Your task to perform on an android device: turn vacation reply on in the gmail app Image 0: 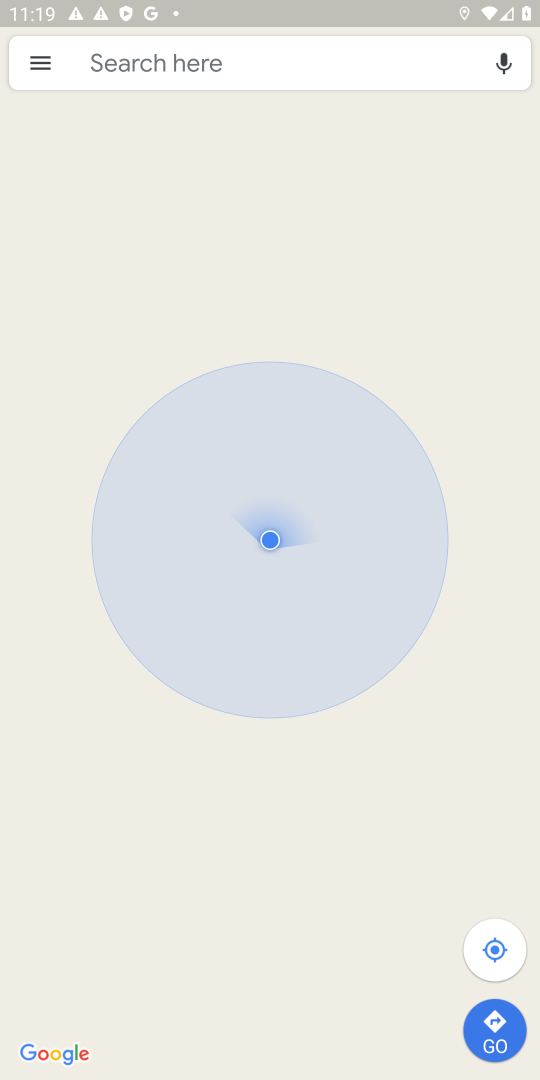
Step 0: press back button
Your task to perform on an android device: turn vacation reply on in the gmail app Image 1: 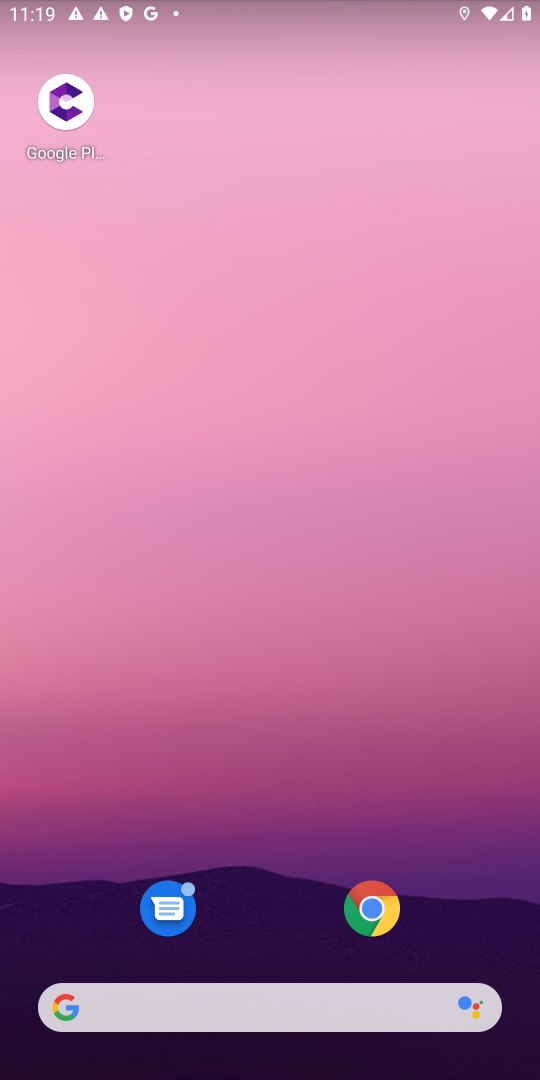
Step 1: drag from (465, 921) to (371, 94)
Your task to perform on an android device: turn vacation reply on in the gmail app Image 2: 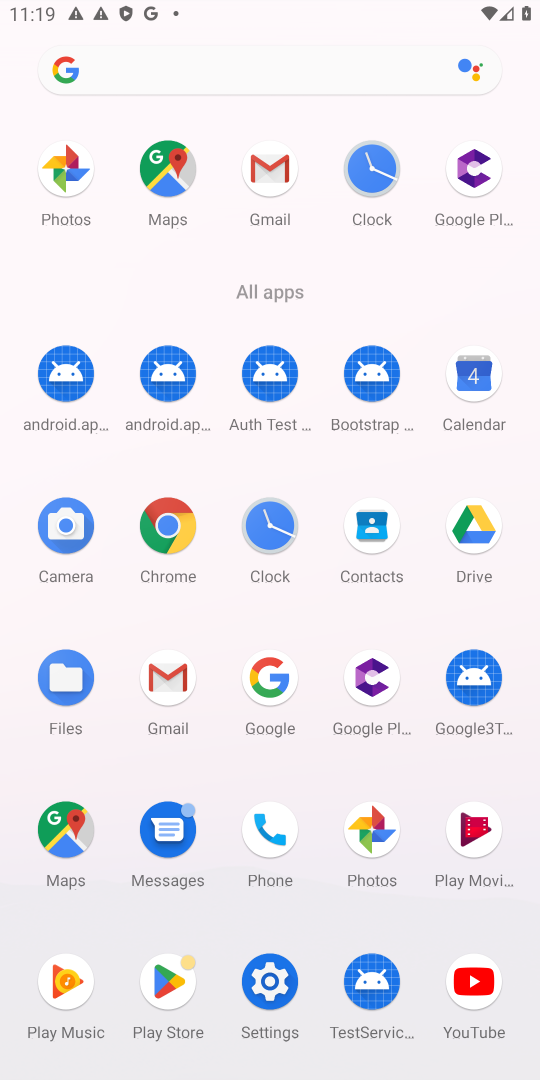
Step 2: click (267, 153)
Your task to perform on an android device: turn vacation reply on in the gmail app Image 3: 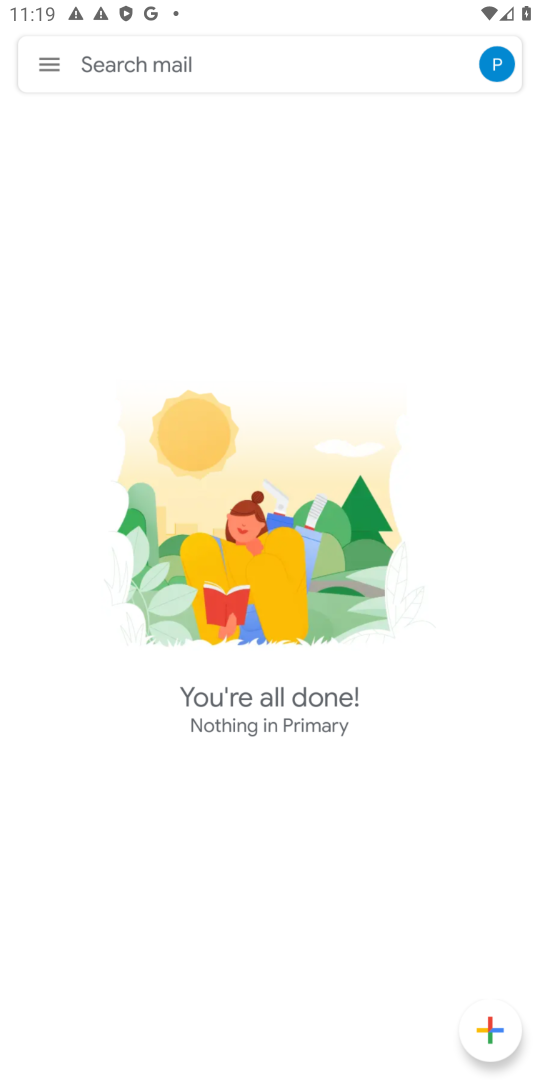
Step 3: click (284, 188)
Your task to perform on an android device: turn vacation reply on in the gmail app Image 4: 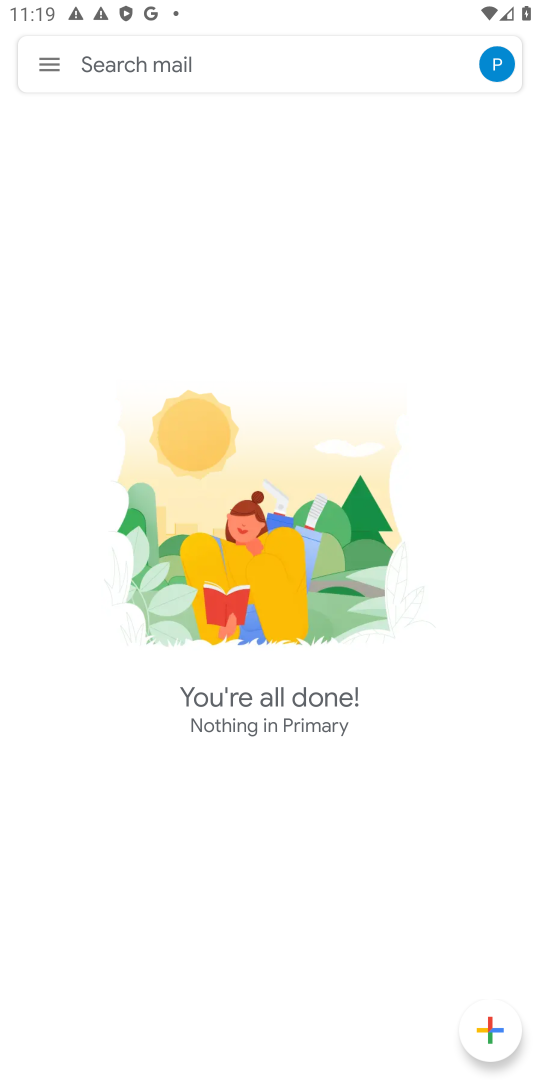
Step 4: click (49, 70)
Your task to perform on an android device: turn vacation reply on in the gmail app Image 5: 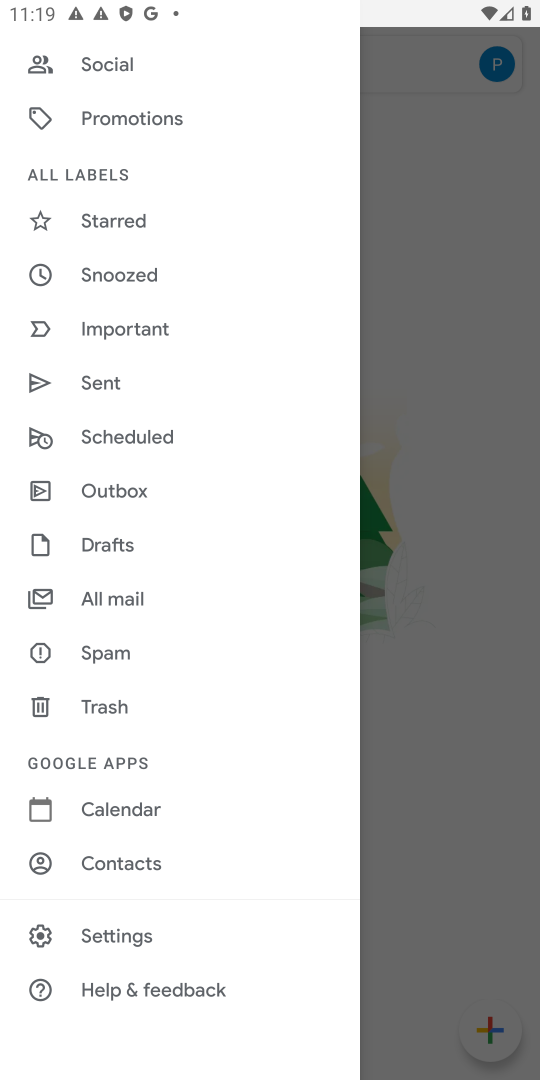
Step 5: click (167, 946)
Your task to perform on an android device: turn vacation reply on in the gmail app Image 6: 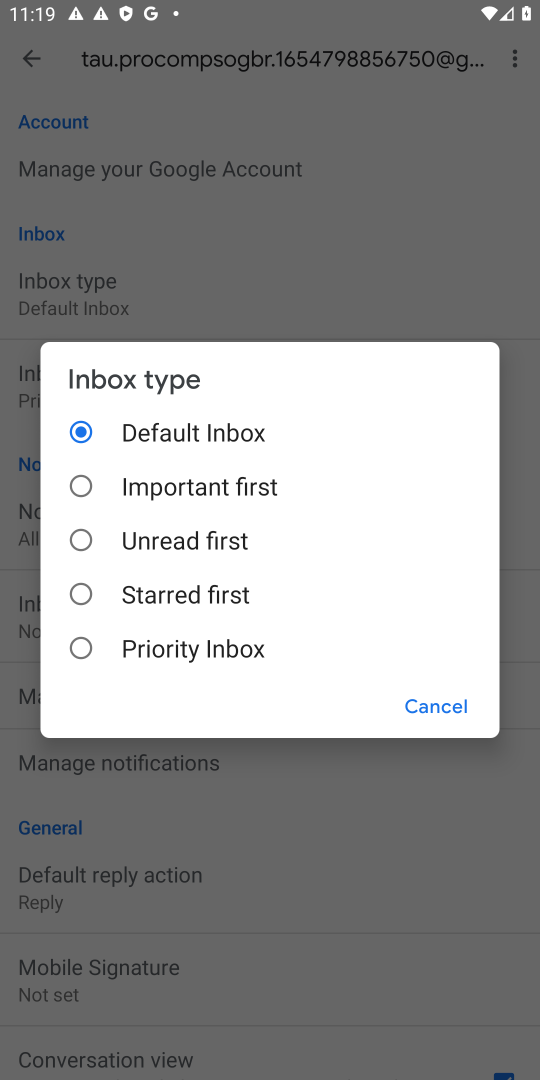
Step 6: click (453, 696)
Your task to perform on an android device: turn vacation reply on in the gmail app Image 7: 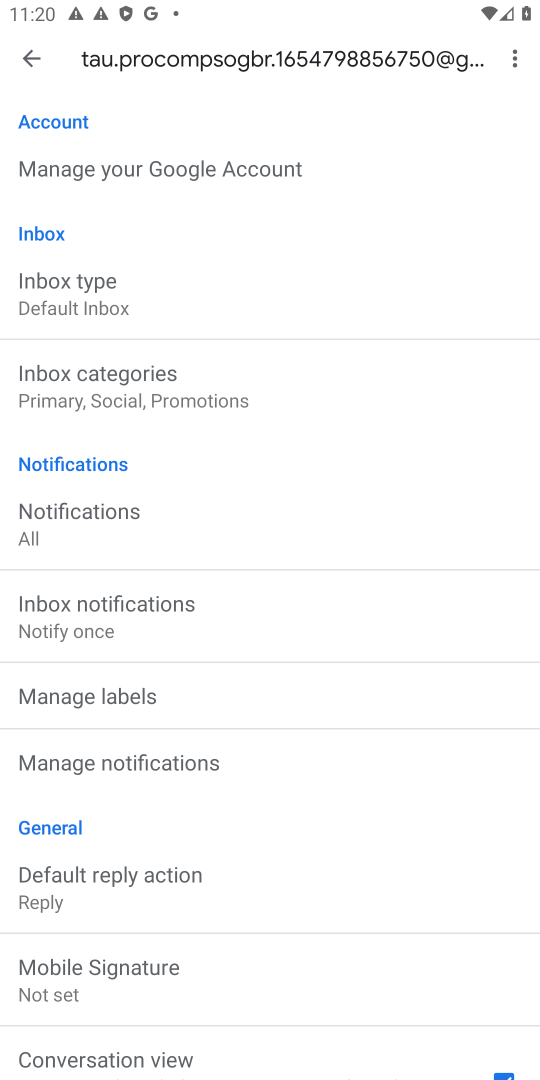
Step 7: drag from (273, 891) to (212, 218)
Your task to perform on an android device: turn vacation reply on in the gmail app Image 8: 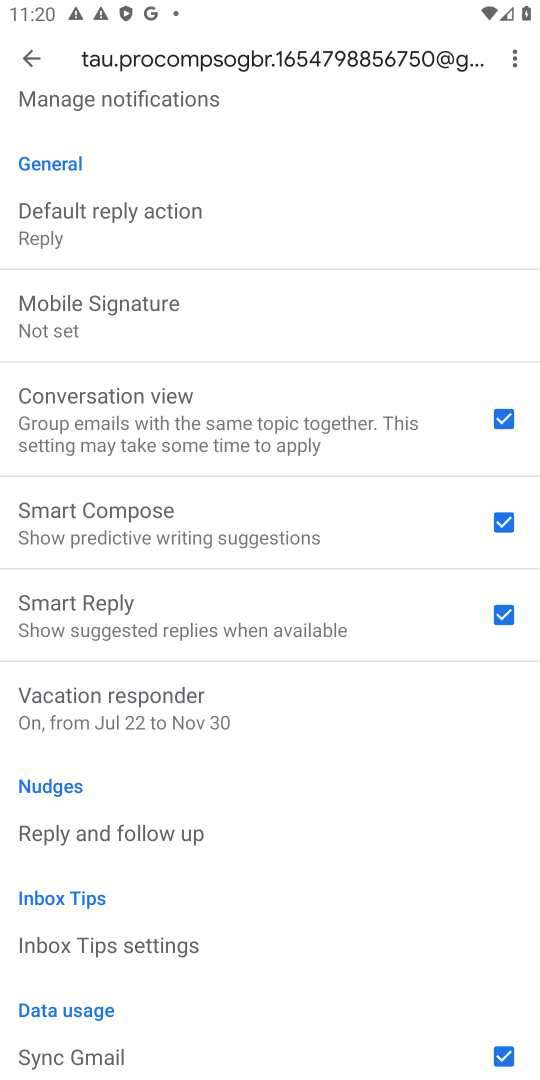
Step 8: click (185, 719)
Your task to perform on an android device: turn vacation reply on in the gmail app Image 9: 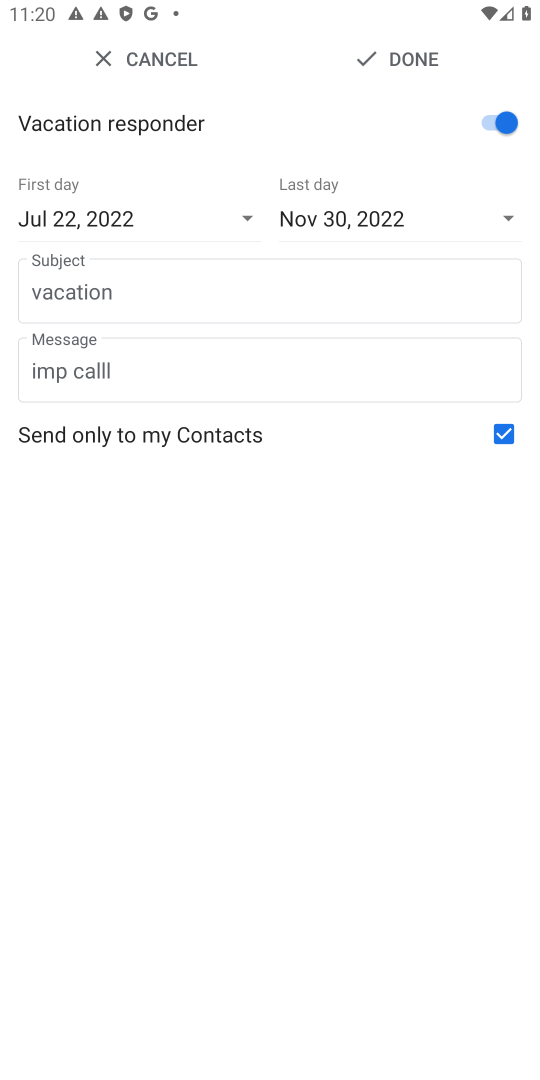
Step 9: task complete